Your task to perform on an android device: open chrome and create a bookmark for the current page Image 0: 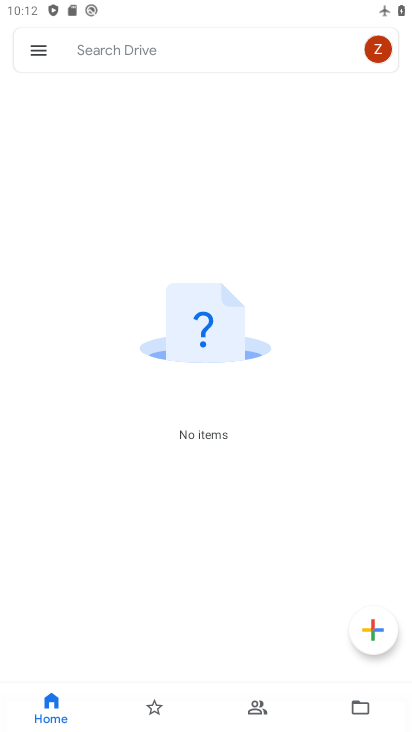
Step 0: press home button
Your task to perform on an android device: open chrome and create a bookmark for the current page Image 1: 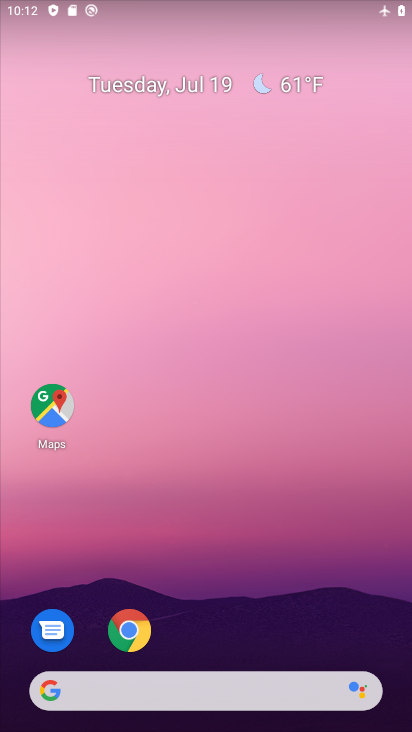
Step 1: click (126, 632)
Your task to perform on an android device: open chrome and create a bookmark for the current page Image 2: 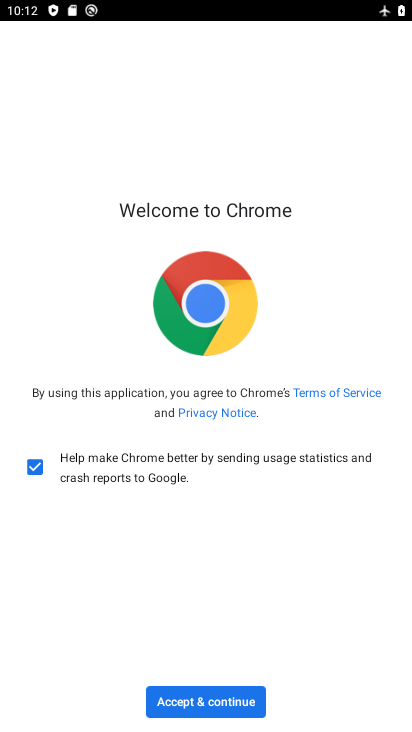
Step 2: click (207, 704)
Your task to perform on an android device: open chrome and create a bookmark for the current page Image 3: 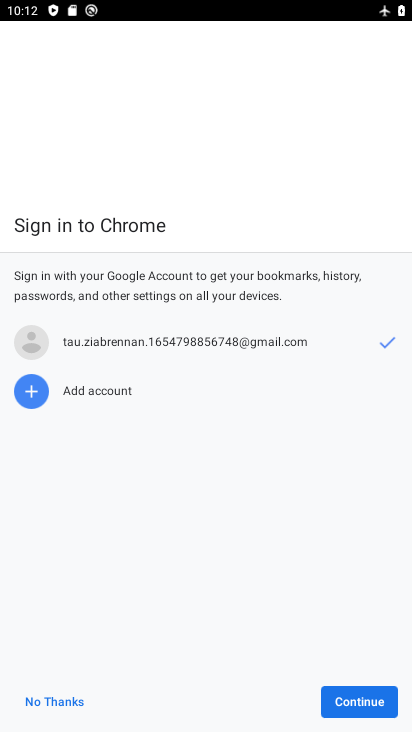
Step 3: click (365, 699)
Your task to perform on an android device: open chrome and create a bookmark for the current page Image 4: 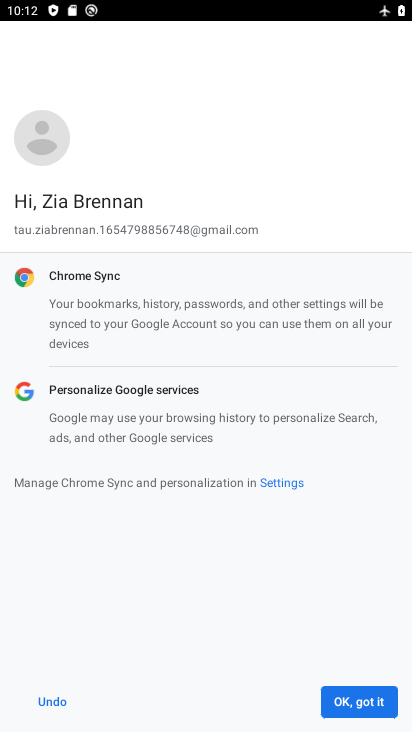
Step 4: click (365, 699)
Your task to perform on an android device: open chrome and create a bookmark for the current page Image 5: 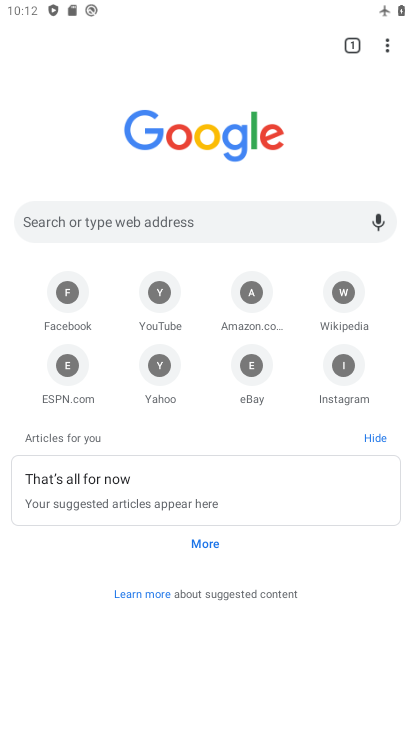
Step 5: click (385, 48)
Your task to perform on an android device: open chrome and create a bookmark for the current page Image 6: 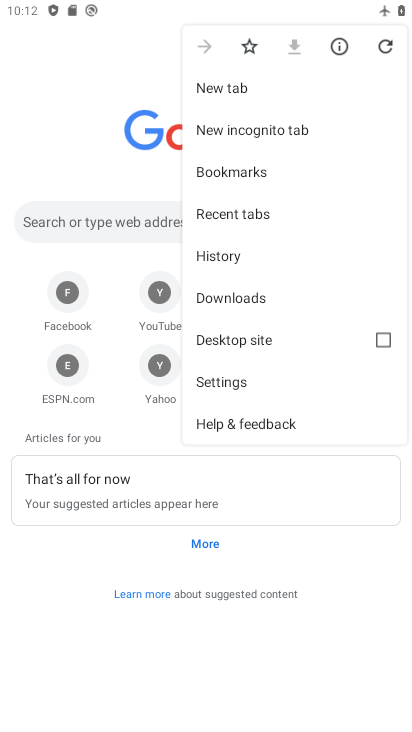
Step 6: click (247, 47)
Your task to perform on an android device: open chrome and create a bookmark for the current page Image 7: 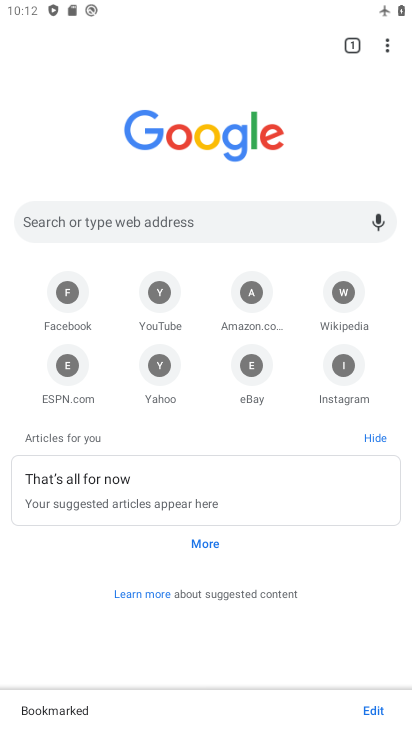
Step 7: task complete